Your task to perform on an android device: Search for vegetarian restaurants on Maps Image 0: 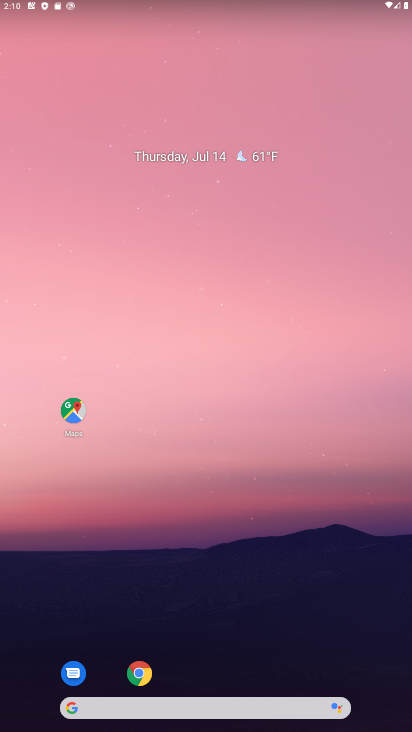
Step 0: click (76, 415)
Your task to perform on an android device: Search for vegetarian restaurants on Maps Image 1: 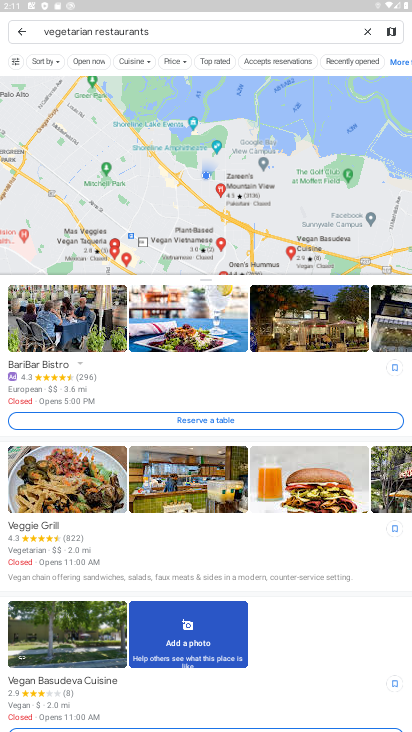
Step 1: task complete